Your task to perform on an android device: show emergency info Image 0: 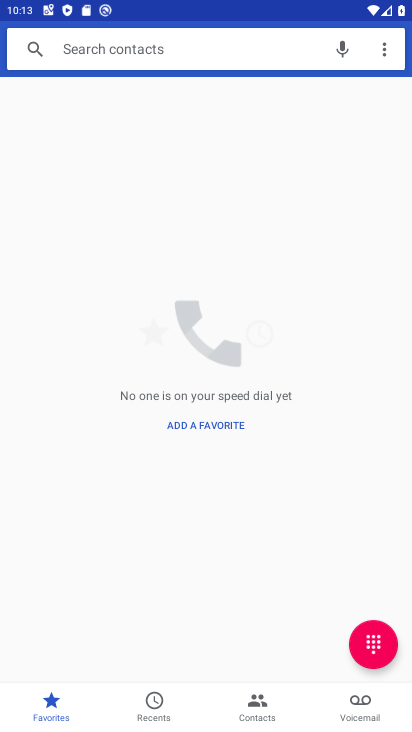
Step 0: press home button
Your task to perform on an android device: show emergency info Image 1: 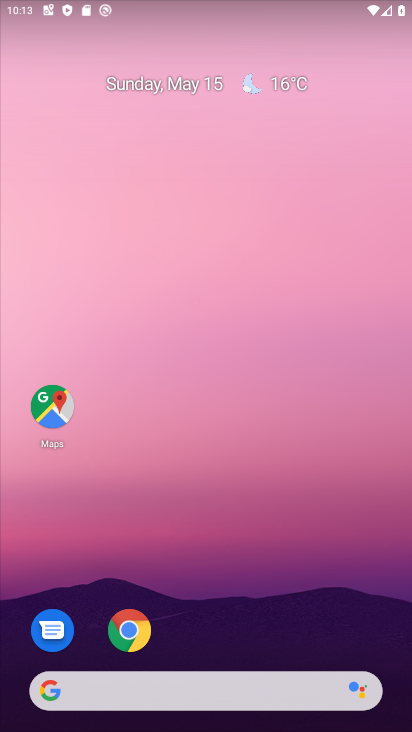
Step 1: drag from (203, 630) to (200, 146)
Your task to perform on an android device: show emergency info Image 2: 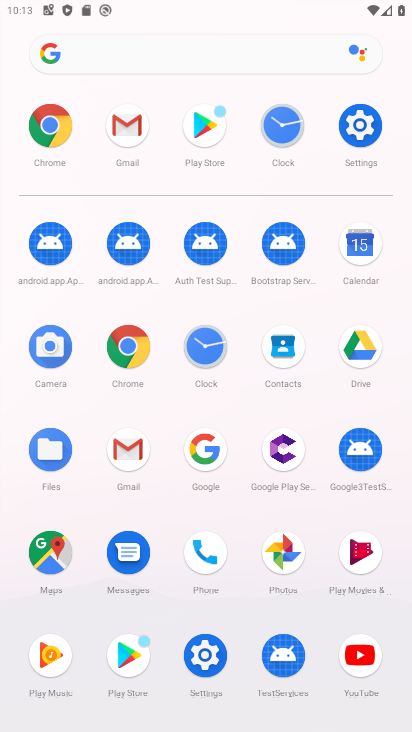
Step 2: click (364, 128)
Your task to perform on an android device: show emergency info Image 3: 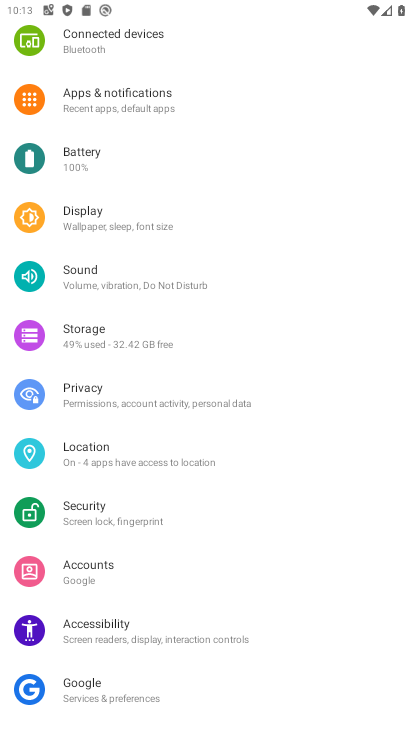
Step 3: drag from (146, 690) to (174, 367)
Your task to perform on an android device: show emergency info Image 4: 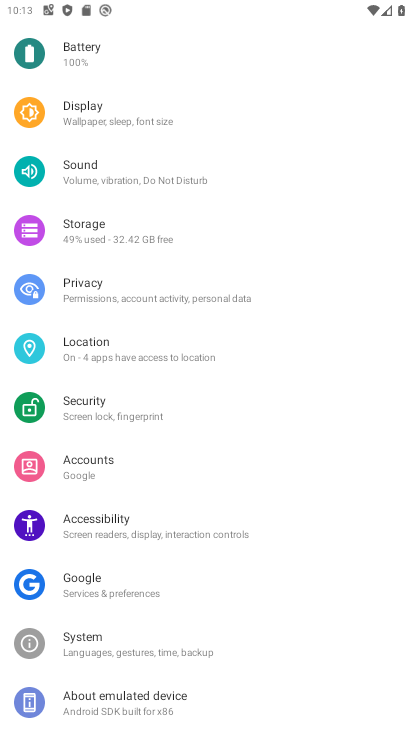
Step 4: click (139, 692)
Your task to perform on an android device: show emergency info Image 5: 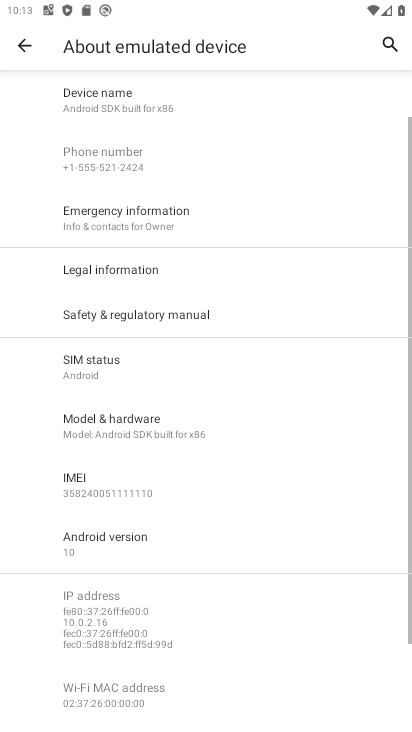
Step 5: click (218, 229)
Your task to perform on an android device: show emergency info Image 6: 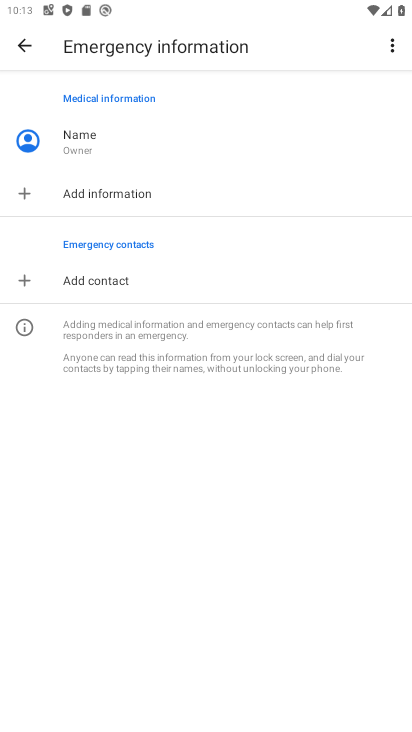
Step 6: task complete